Your task to perform on an android device: See recent photos Image 0: 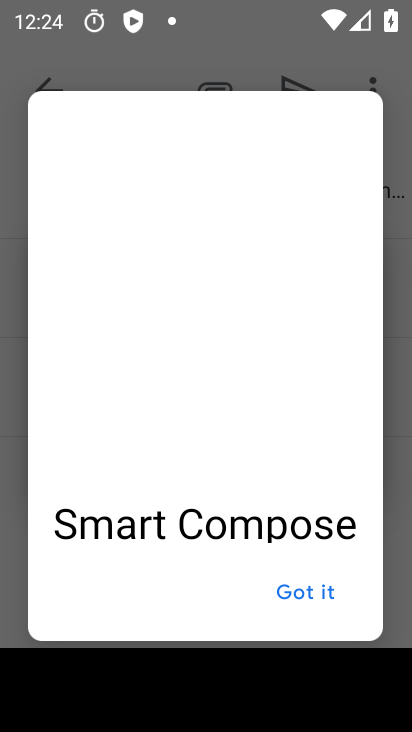
Step 0: press back button
Your task to perform on an android device: See recent photos Image 1: 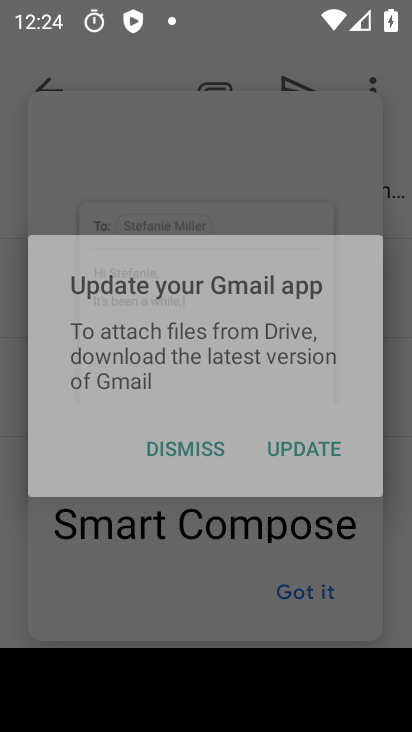
Step 1: press home button
Your task to perform on an android device: See recent photos Image 2: 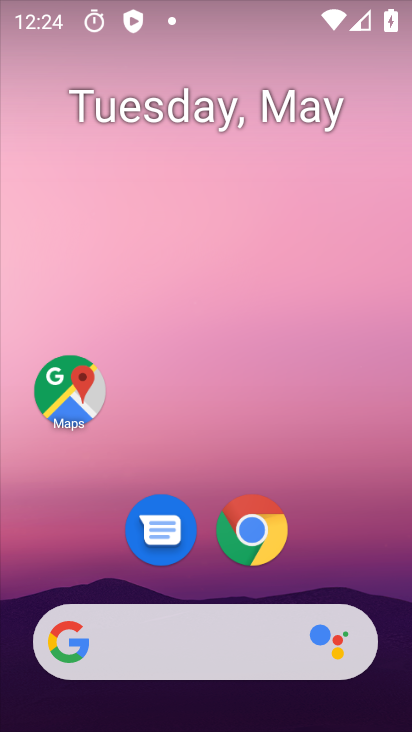
Step 2: drag from (312, 378) to (249, 0)
Your task to perform on an android device: See recent photos Image 3: 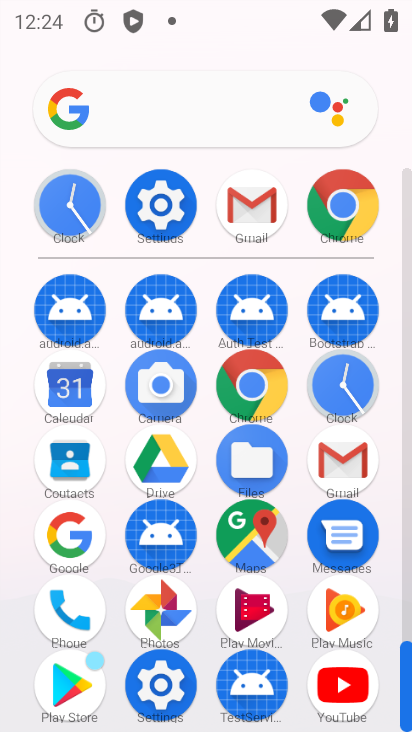
Step 3: drag from (10, 522) to (7, 224)
Your task to perform on an android device: See recent photos Image 4: 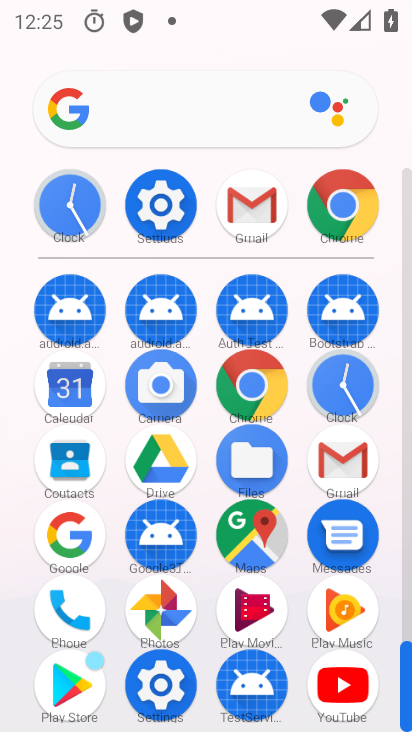
Step 4: click (164, 607)
Your task to perform on an android device: See recent photos Image 5: 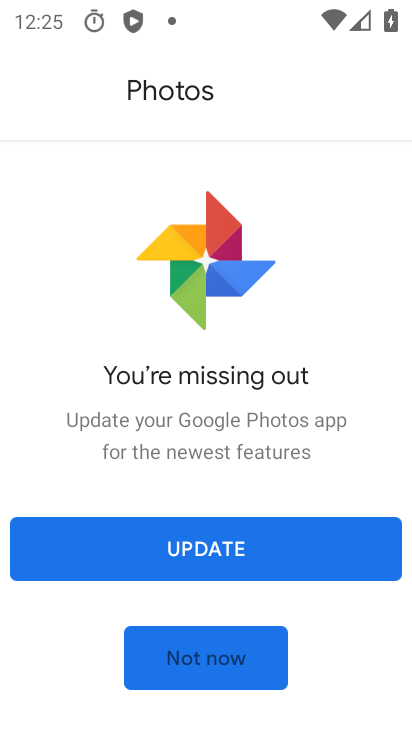
Step 5: click (253, 550)
Your task to perform on an android device: See recent photos Image 6: 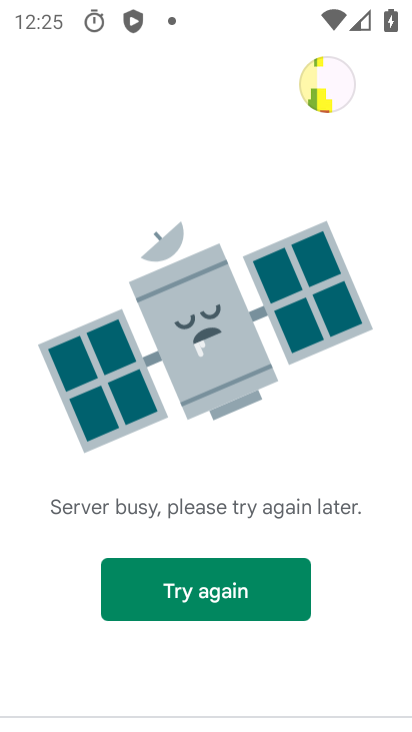
Step 6: click (174, 598)
Your task to perform on an android device: See recent photos Image 7: 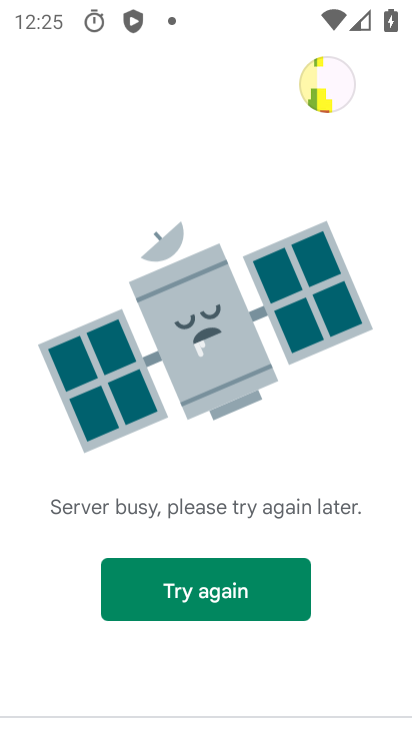
Step 7: task complete